Your task to perform on an android device: What's the weather today? Image 0: 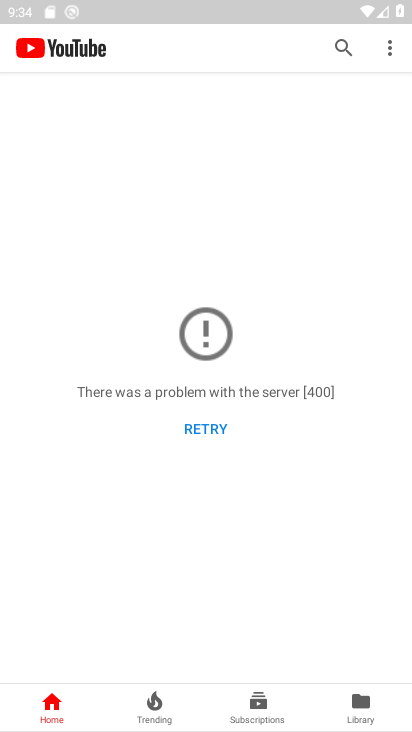
Step 0: press home button
Your task to perform on an android device: What's the weather today? Image 1: 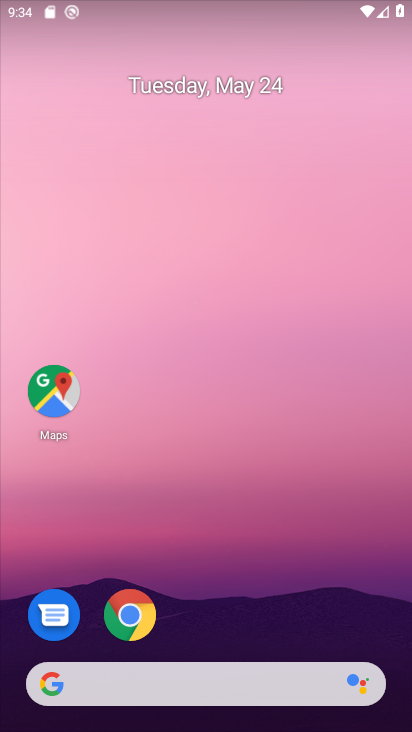
Step 1: click (280, 681)
Your task to perform on an android device: What's the weather today? Image 2: 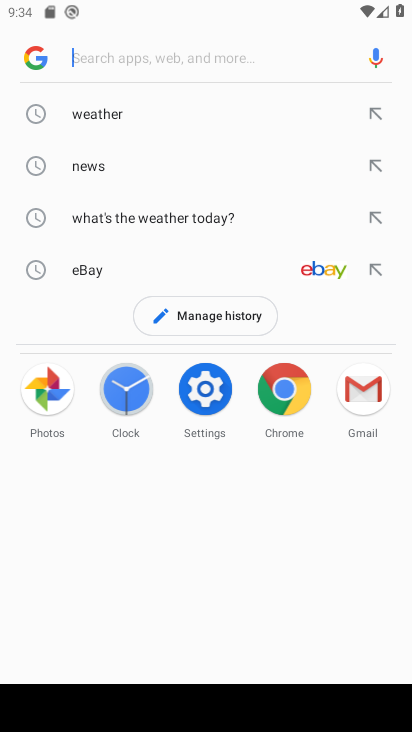
Step 2: click (98, 116)
Your task to perform on an android device: What's the weather today? Image 3: 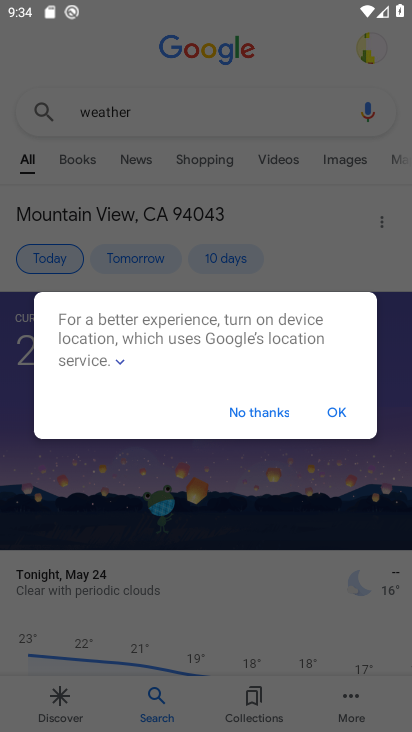
Step 3: click (258, 425)
Your task to perform on an android device: What's the weather today? Image 4: 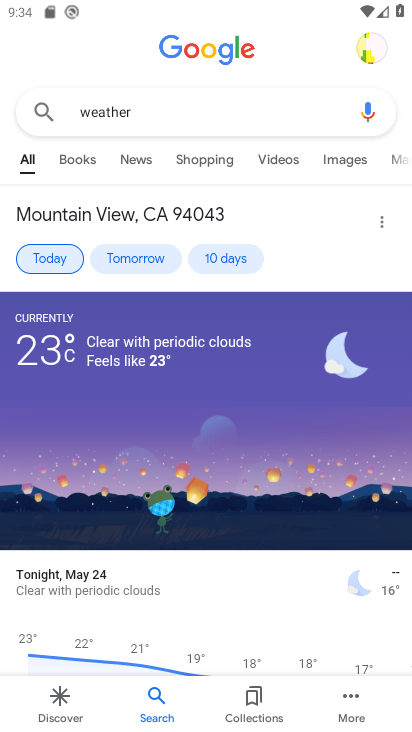
Step 4: click (42, 249)
Your task to perform on an android device: What's the weather today? Image 5: 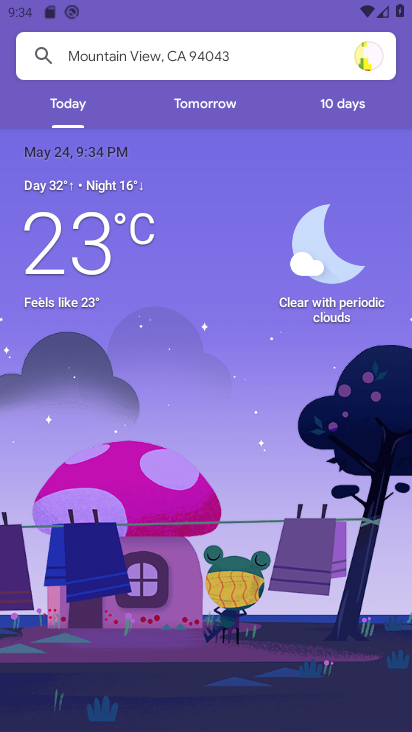
Step 5: task complete